Your task to perform on an android device: Search for Mexican restaurants on Maps Image 0: 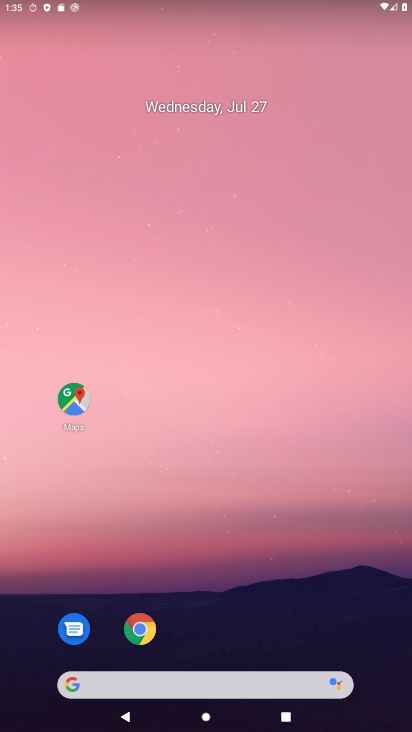
Step 0: press home button
Your task to perform on an android device: Search for Mexican restaurants on Maps Image 1: 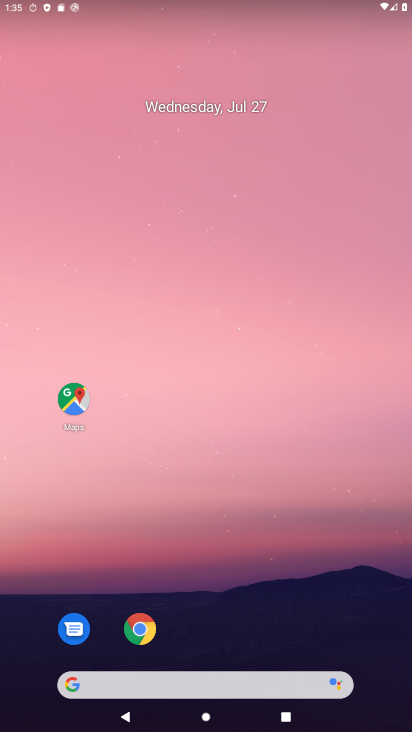
Step 1: drag from (247, 644) to (277, 153)
Your task to perform on an android device: Search for Mexican restaurants on Maps Image 2: 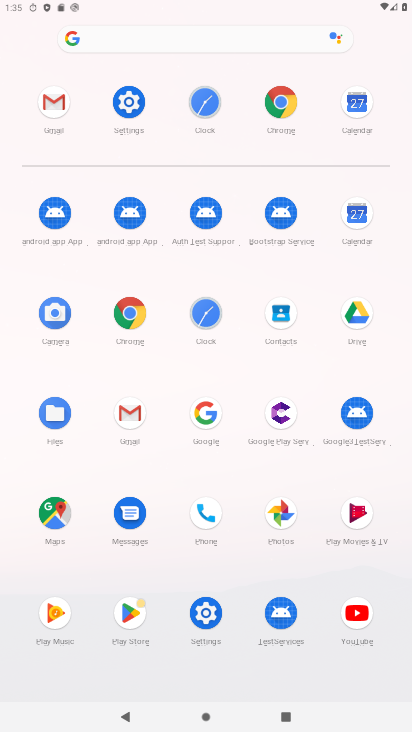
Step 2: click (59, 500)
Your task to perform on an android device: Search for Mexican restaurants on Maps Image 3: 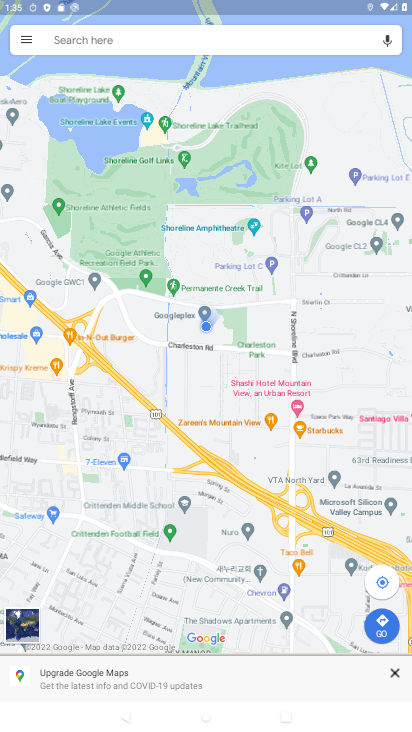
Step 3: click (182, 29)
Your task to perform on an android device: Search for Mexican restaurants on Maps Image 4: 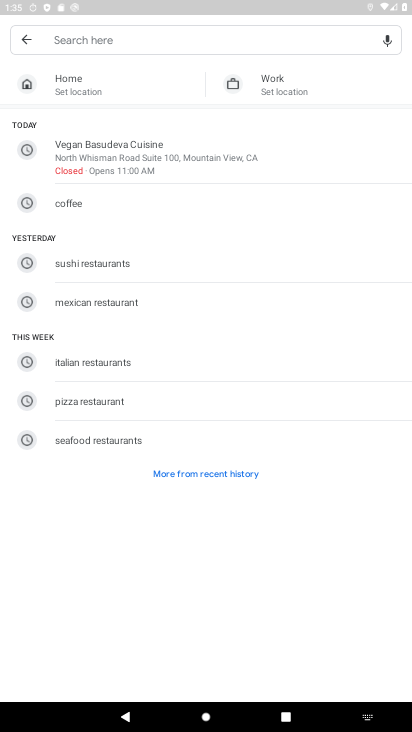
Step 4: click (110, 306)
Your task to perform on an android device: Search for Mexican restaurants on Maps Image 5: 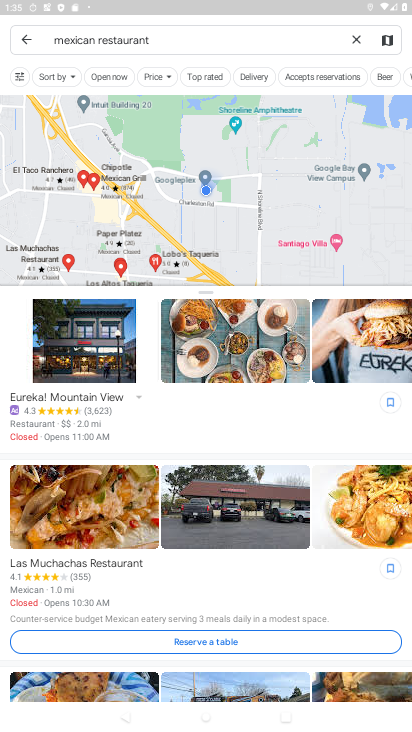
Step 5: task complete